Your task to perform on an android device: Open maps Image 0: 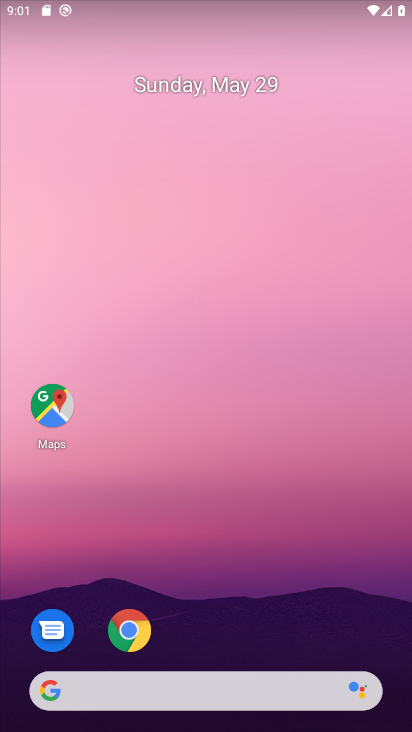
Step 0: click (65, 410)
Your task to perform on an android device: Open maps Image 1: 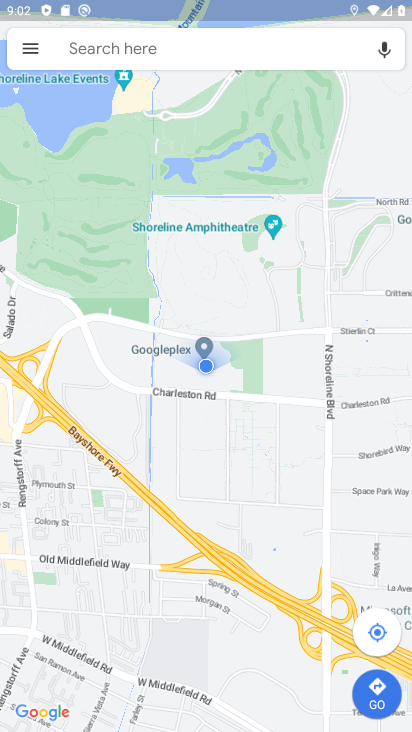
Step 1: drag from (218, 586) to (150, 624)
Your task to perform on an android device: Open maps Image 2: 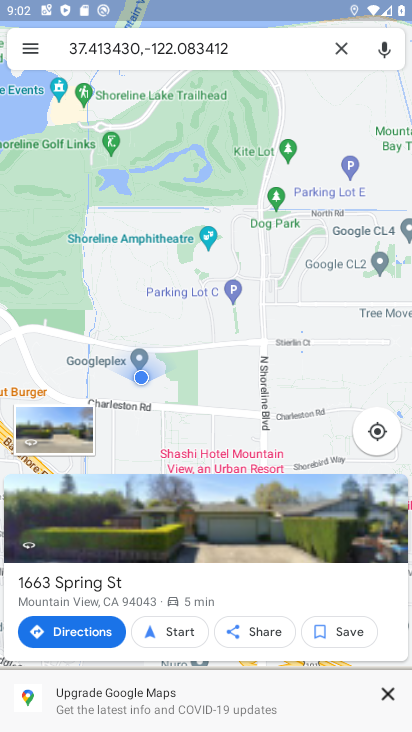
Step 2: click (388, 698)
Your task to perform on an android device: Open maps Image 3: 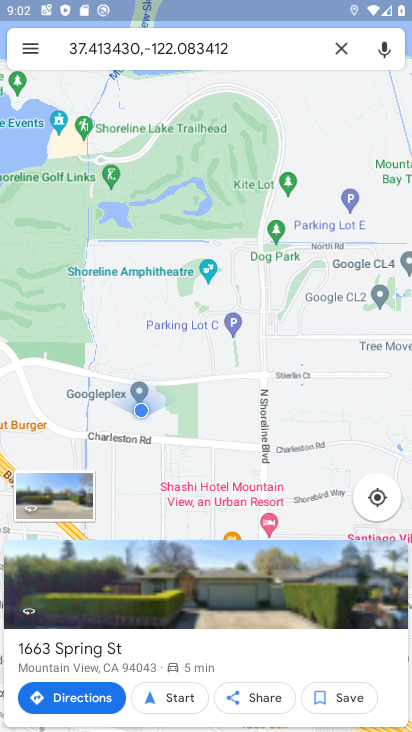
Step 3: task complete